Your task to perform on an android device: open a bookmark in the chrome app Image 0: 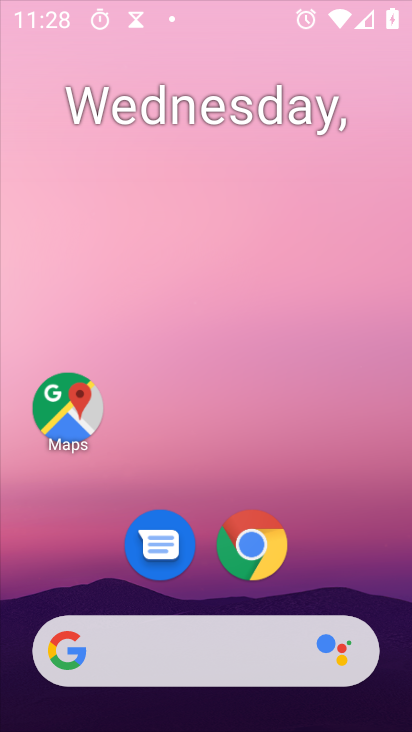
Step 0: press home button
Your task to perform on an android device: open a bookmark in the chrome app Image 1: 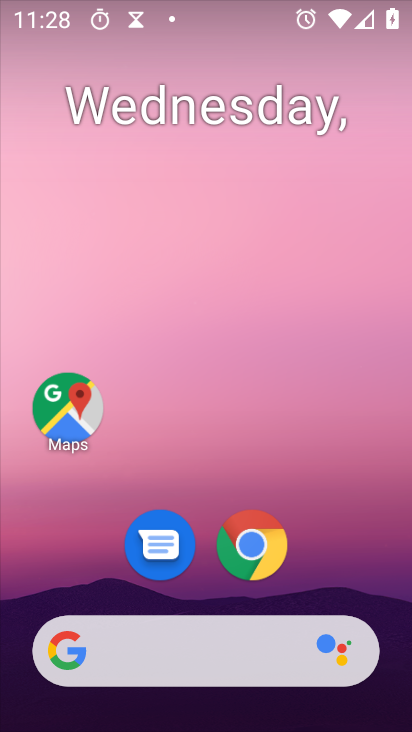
Step 1: click (272, 551)
Your task to perform on an android device: open a bookmark in the chrome app Image 2: 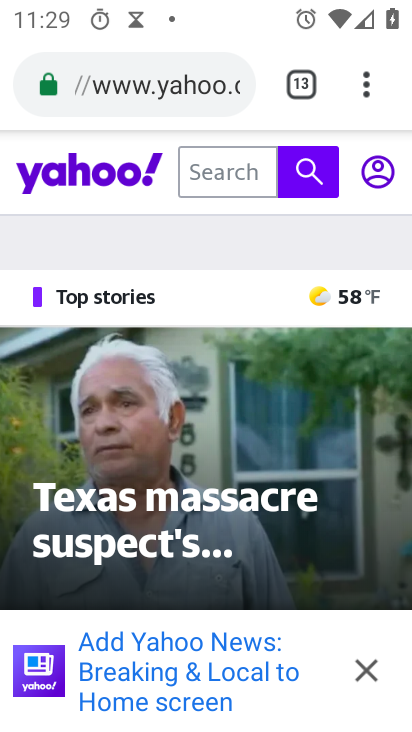
Step 2: task complete